Your task to perform on an android device: check battery use Image 0: 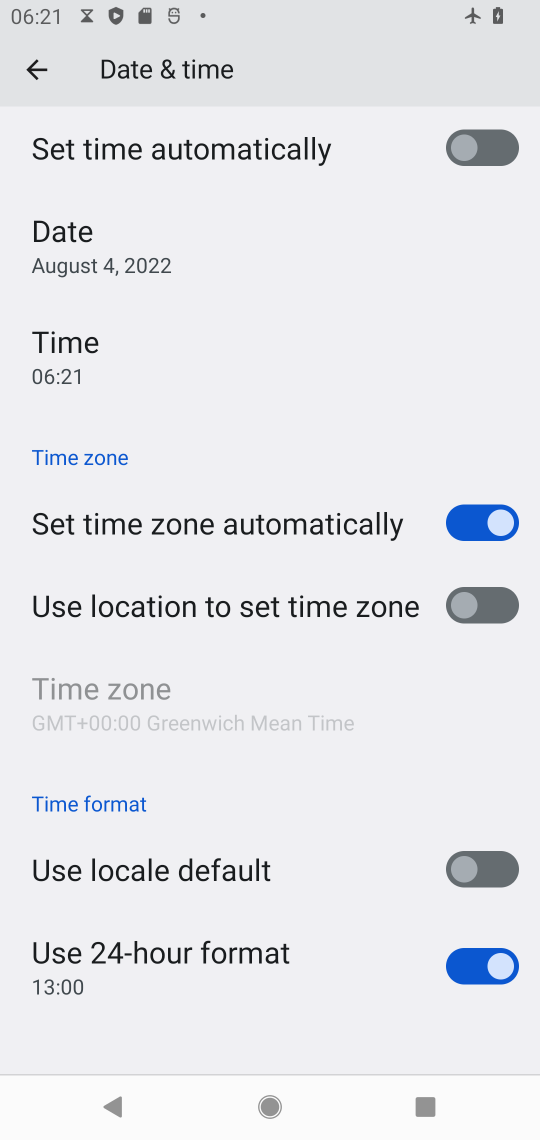
Step 0: press home button
Your task to perform on an android device: check battery use Image 1: 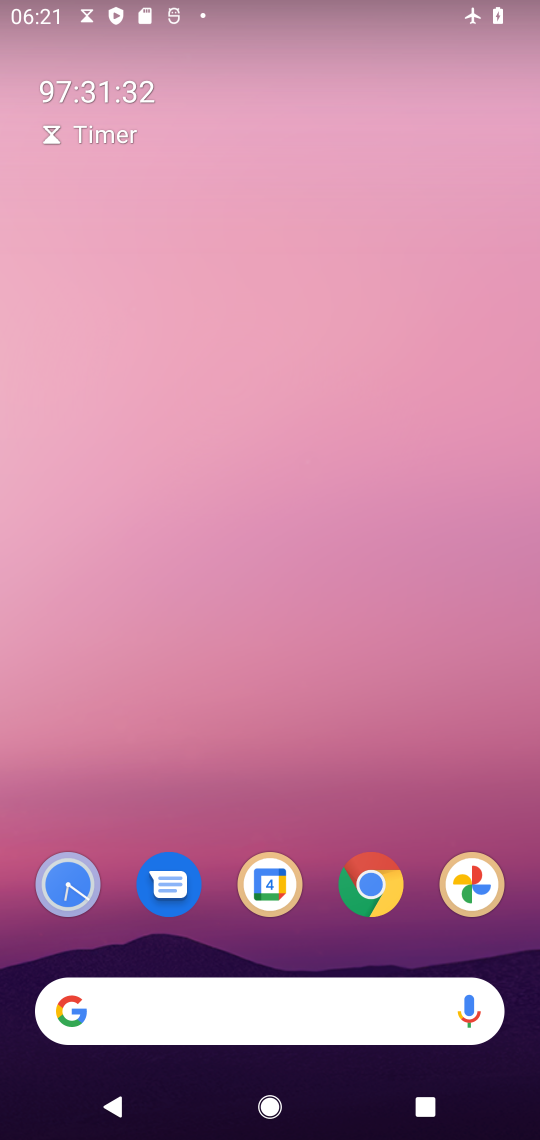
Step 1: drag from (300, 959) to (350, 178)
Your task to perform on an android device: check battery use Image 2: 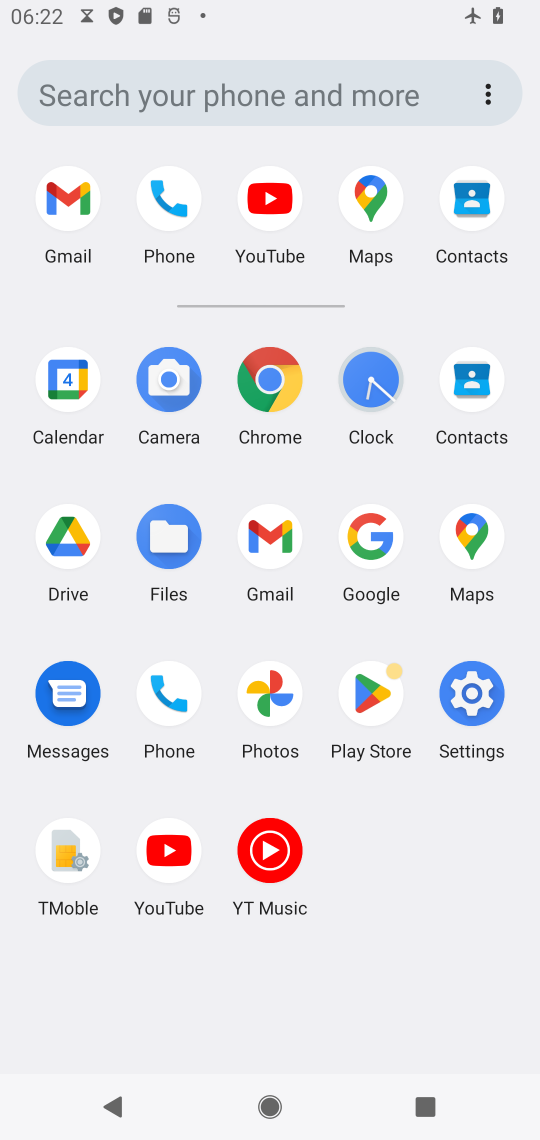
Step 2: click (475, 703)
Your task to perform on an android device: check battery use Image 3: 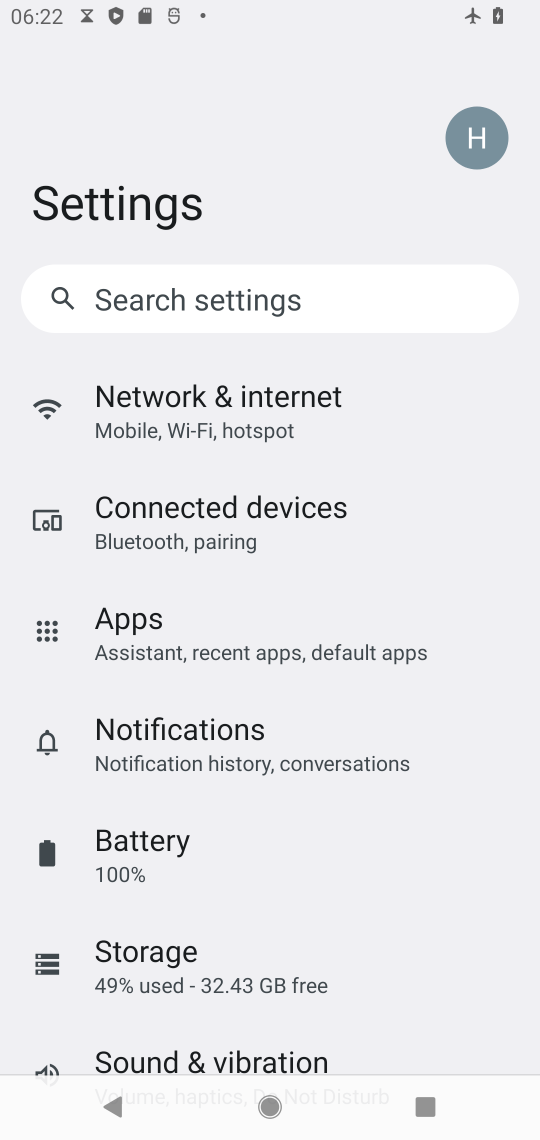
Step 3: click (113, 876)
Your task to perform on an android device: check battery use Image 4: 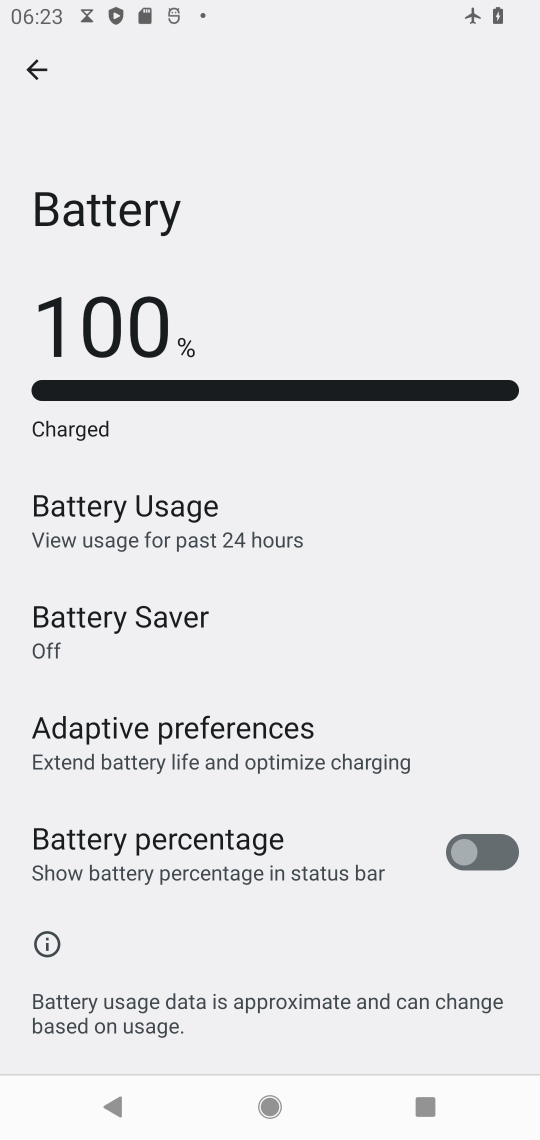
Step 4: task complete